Your task to perform on an android device: Open display settings Image 0: 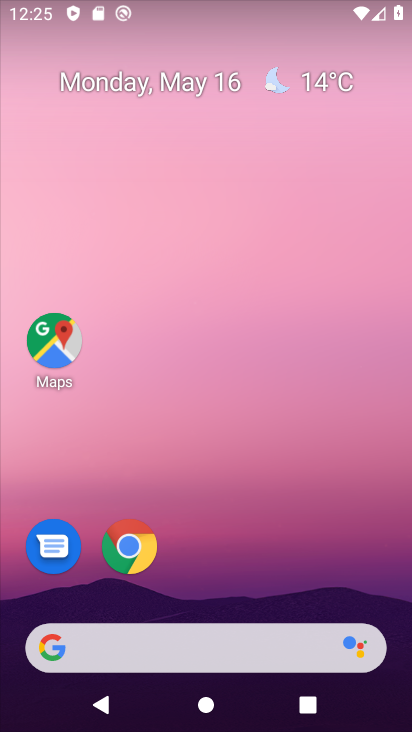
Step 0: drag from (275, 680) to (316, 154)
Your task to perform on an android device: Open display settings Image 1: 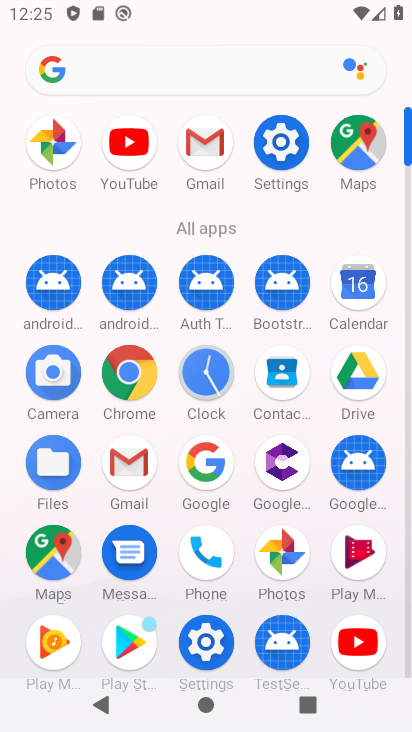
Step 1: click (282, 150)
Your task to perform on an android device: Open display settings Image 2: 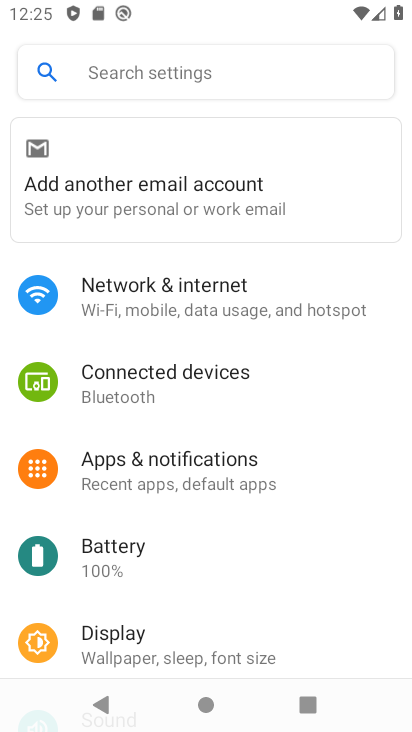
Step 2: click (123, 636)
Your task to perform on an android device: Open display settings Image 3: 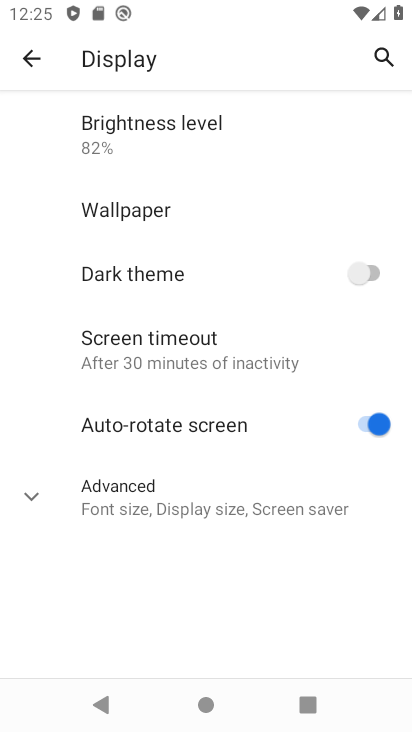
Step 3: task complete